Your task to perform on an android device: Search for vegetarian restaurants on Maps Image 0: 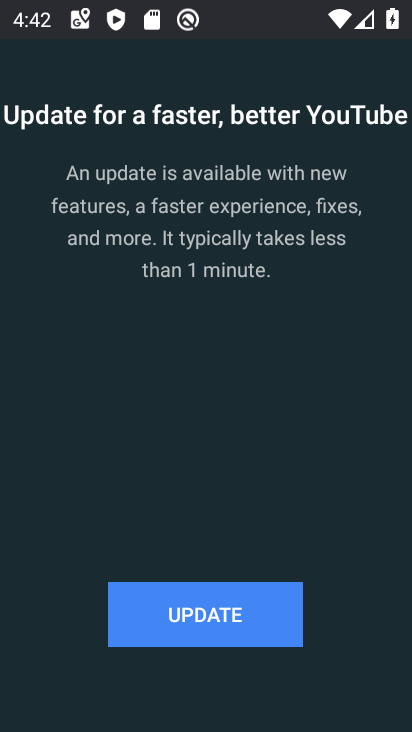
Step 0: press home button
Your task to perform on an android device: Search for vegetarian restaurants on Maps Image 1: 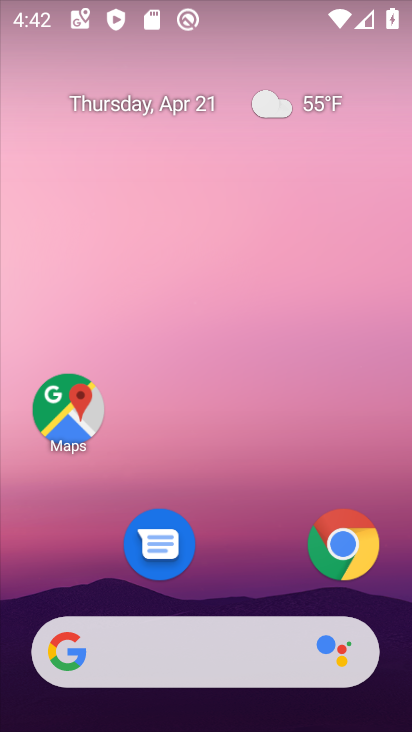
Step 1: drag from (191, 677) to (290, 146)
Your task to perform on an android device: Search for vegetarian restaurants on Maps Image 2: 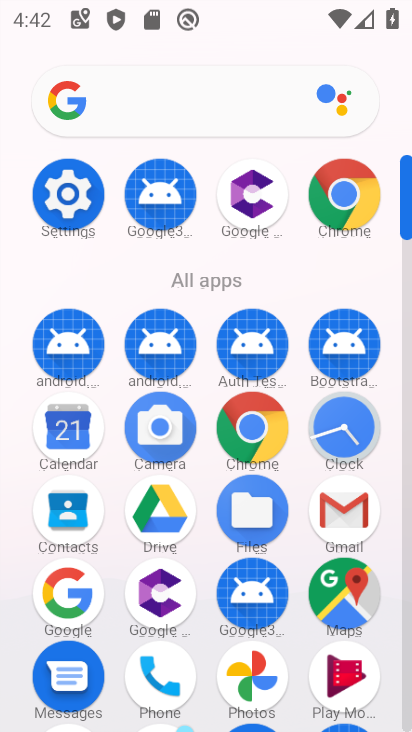
Step 2: click (330, 609)
Your task to perform on an android device: Search for vegetarian restaurants on Maps Image 3: 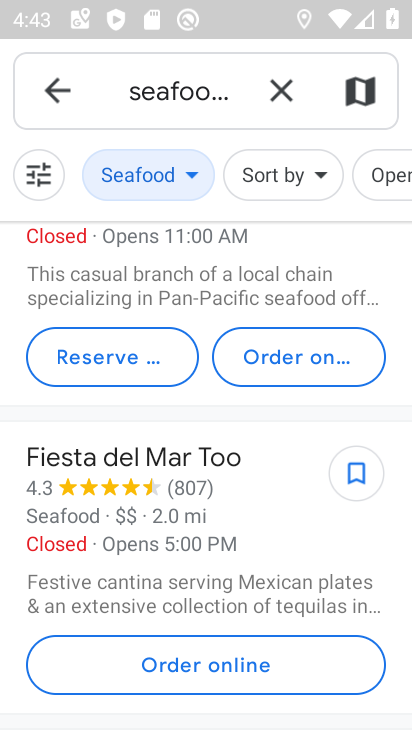
Step 3: click (277, 95)
Your task to perform on an android device: Search for vegetarian restaurants on Maps Image 4: 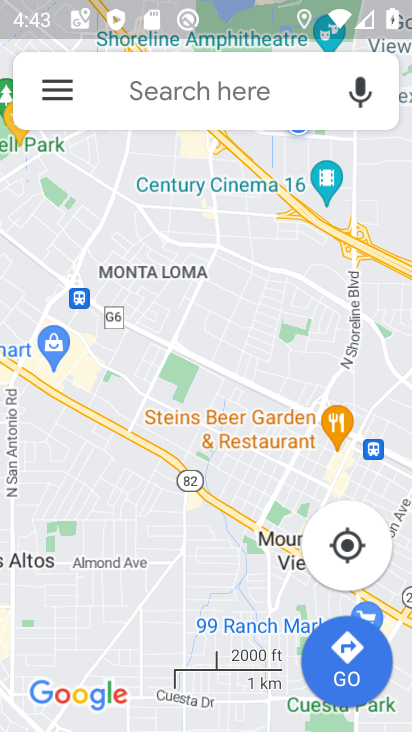
Step 4: click (206, 83)
Your task to perform on an android device: Search for vegetarian restaurants on Maps Image 5: 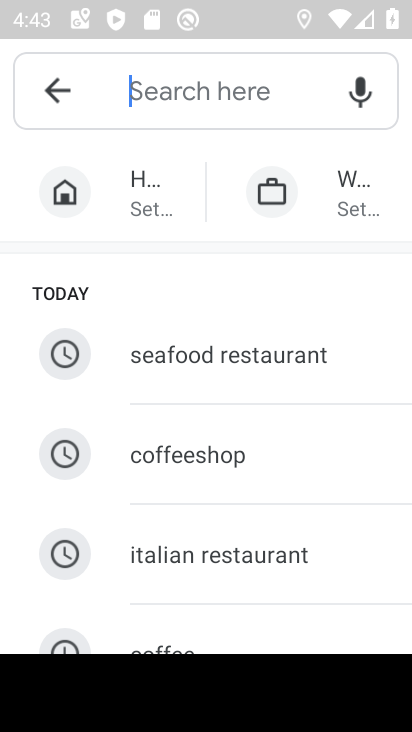
Step 5: drag from (183, 552) to (233, 208)
Your task to perform on an android device: Search for vegetarian restaurants on Maps Image 6: 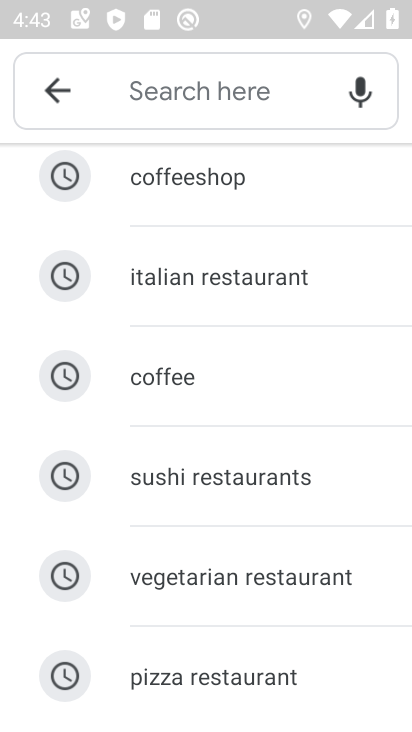
Step 6: click (182, 567)
Your task to perform on an android device: Search for vegetarian restaurants on Maps Image 7: 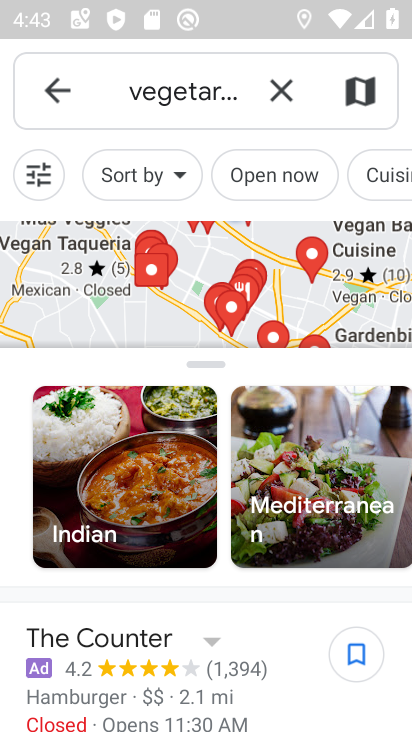
Step 7: task complete